Your task to perform on an android device: toggle pop-ups in chrome Image 0: 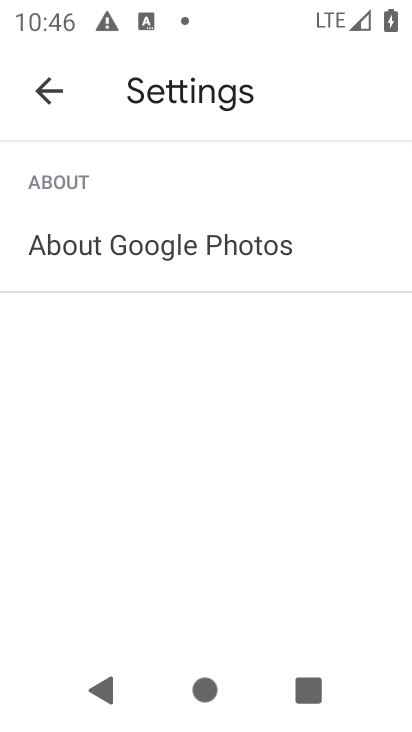
Step 0: press home button
Your task to perform on an android device: toggle pop-ups in chrome Image 1: 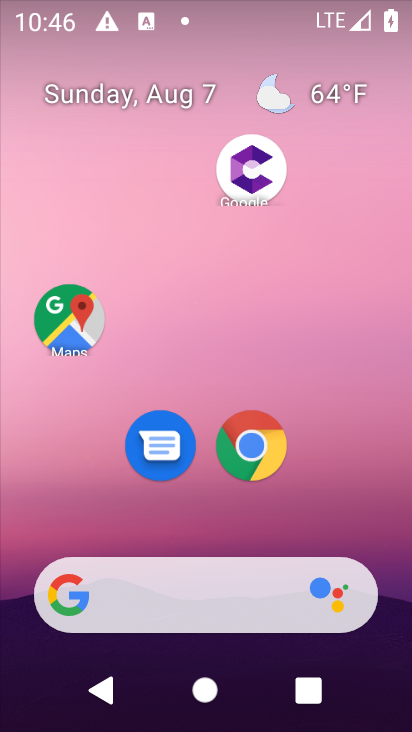
Step 1: click (248, 439)
Your task to perform on an android device: toggle pop-ups in chrome Image 2: 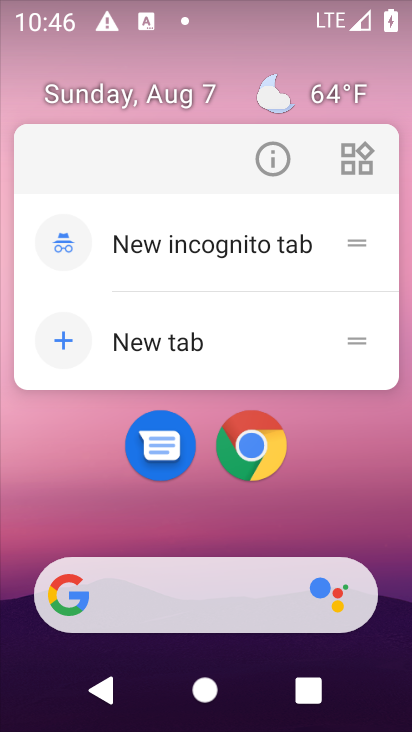
Step 2: click (310, 459)
Your task to perform on an android device: toggle pop-ups in chrome Image 3: 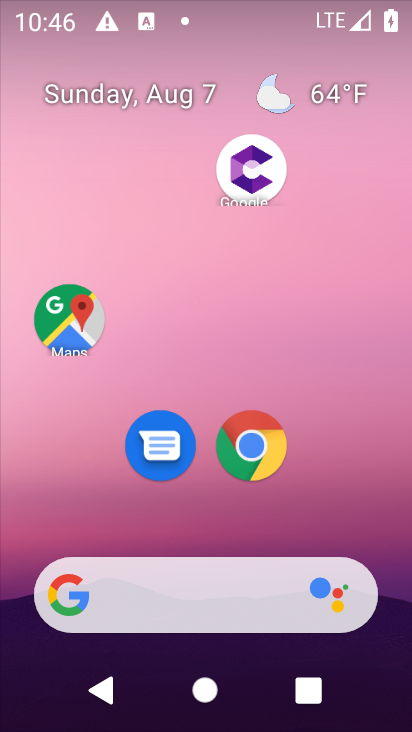
Step 3: drag from (321, 514) to (362, 69)
Your task to perform on an android device: toggle pop-ups in chrome Image 4: 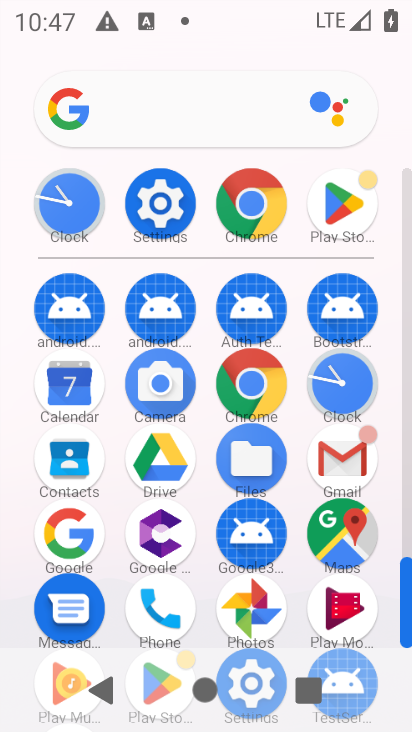
Step 4: click (248, 376)
Your task to perform on an android device: toggle pop-ups in chrome Image 5: 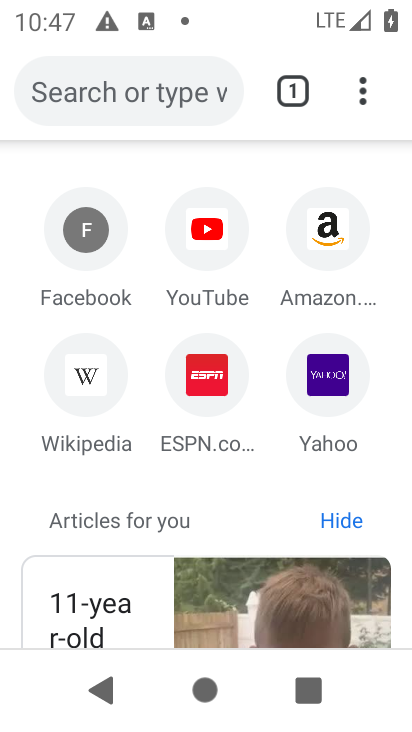
Step 5: click (361, 87)
Your task to perform on an android device: toggle pop-ups in chrome Image 6: 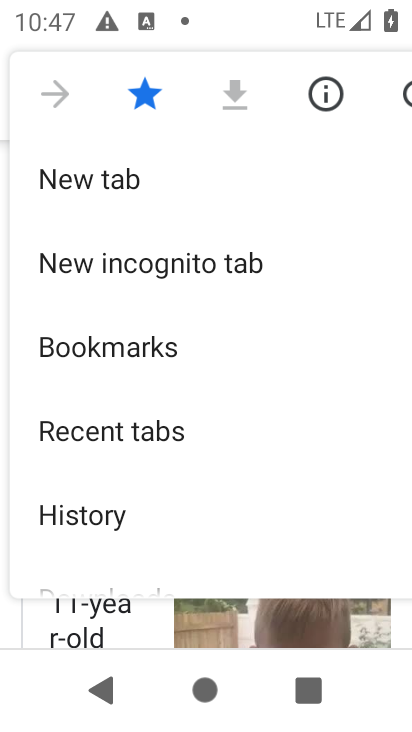
Step 6: drag from (195, 277) to (196, 217)
Your task to perform on an android device: toggle pop-ups in chrome Image 7: 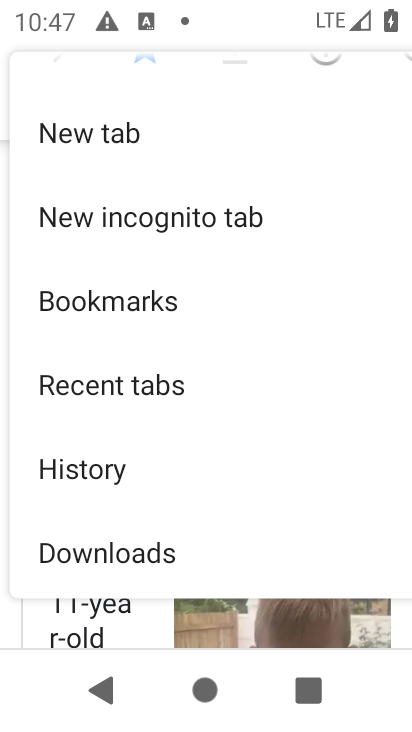
Step 7: drag from (211, 539) to (196, 66)
Your task to perform on an android device: toggle pop-ups in chrome Image 8: 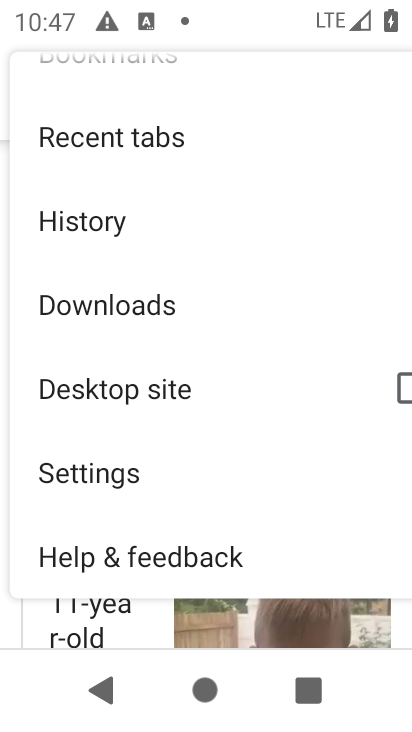
Step 8: click (153, 469)
Your task to perform on an android device: toggle pop-ups in chrome Image 9: 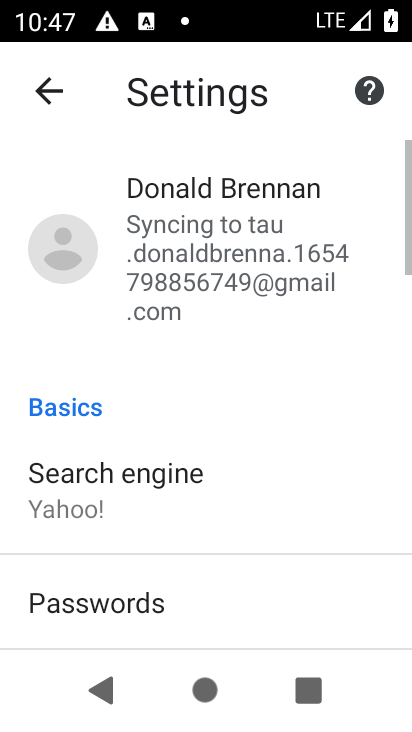
Step 9: drag from (212, 584) to (206, 177)
Your task to perform on an android device: toggle pop-ups in chrome Image 10: 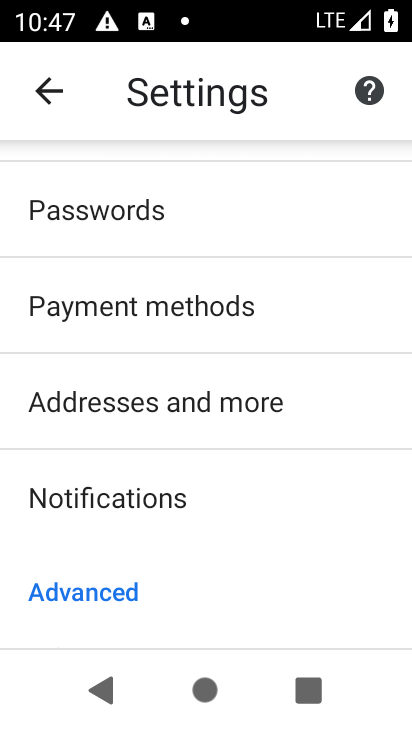
Step 10: drag from (216, 596) to (225, 200)
Your task to perform on an android device: toggle pop-ups in chrome Image 11: 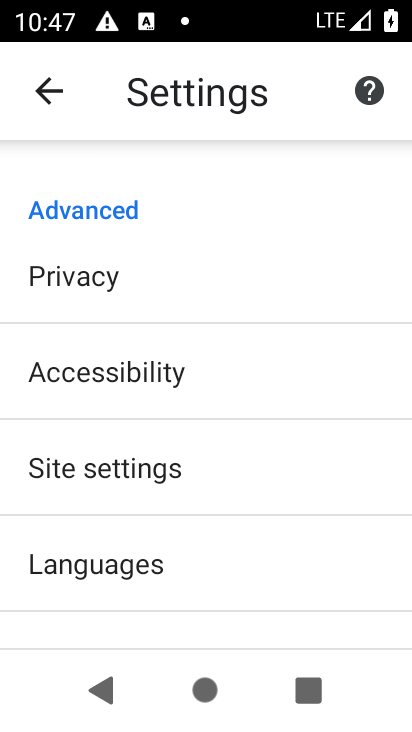
Step 11: click (186, 458)
Your task to perform on an android device: toggle pop-ups in chrome Image 12: 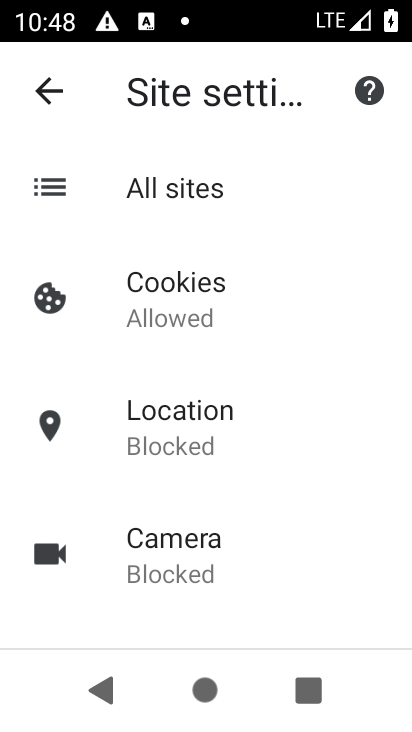
Step 12: drag from (249, 597) to (285, 172)
Your task to perform on an android device: toggle pop-ups in chrome Image 13: 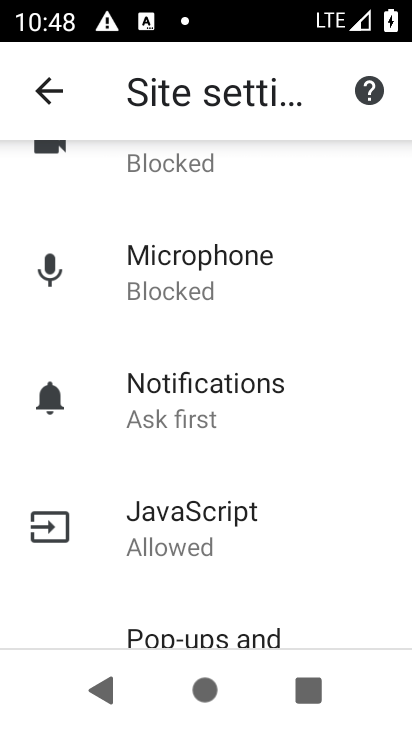
Step 13: click (283, 628)
Your task to perform on an android device: toggle pop-ups in chrome Image 14: 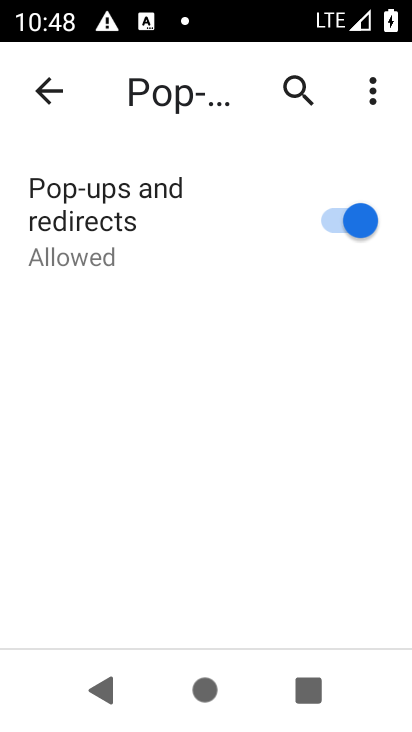
Step 14: task complete